Your task to perform on an android device: open device folders in google photos Image 0: 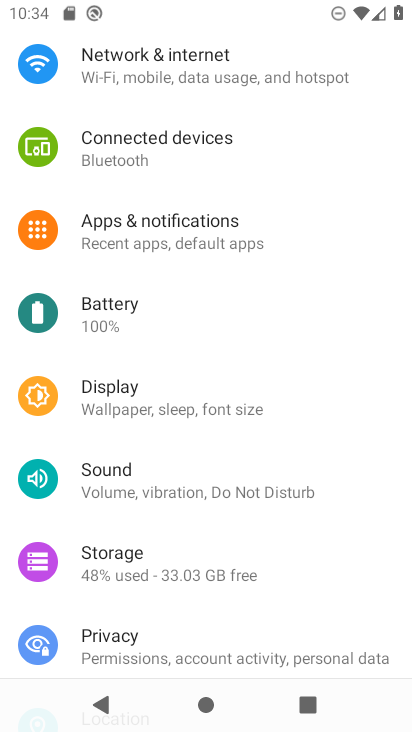
Step 0: press home button
Your task to perform on an android device: open device folders in google photos Image 1: 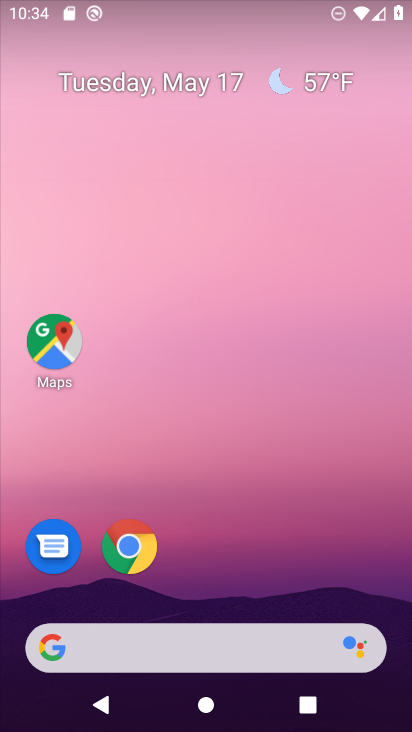
Step 1: drag from (297, 615) to (344, 27)
Your task to perform on an android device: open device folders in google photos Image 2: 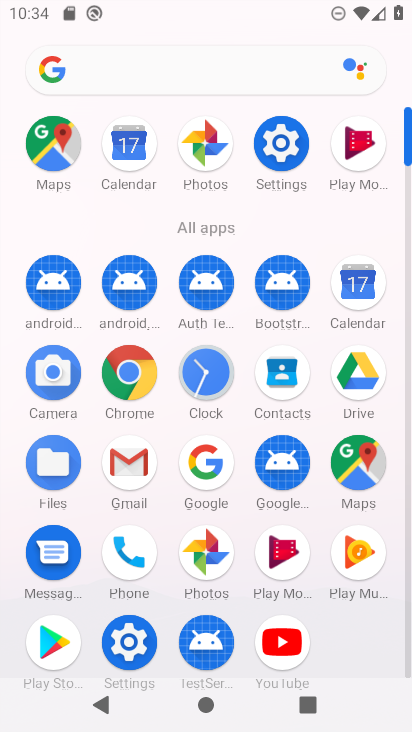
Step 2: click (207, 150)
Your task to perform on an android device: open device folders in google photos Image 3: 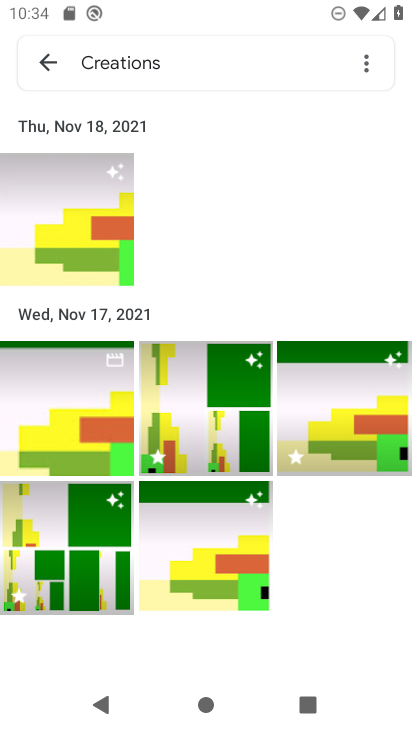
Step 3: click (41, 61)
Your task to perform on an android device: open device folders in google photos Image 4: 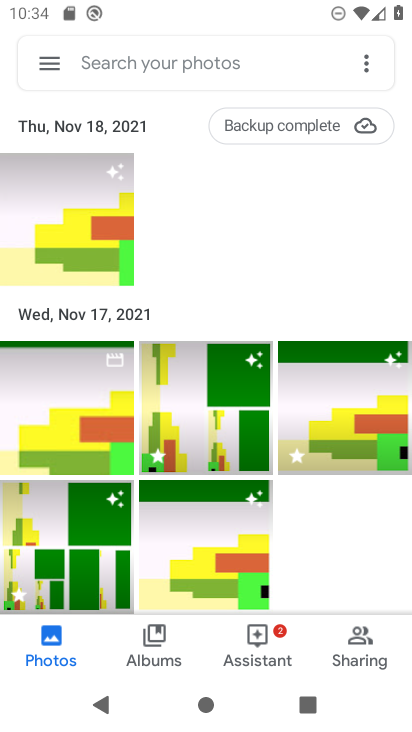
Step 4: click (44, 61)
Your task to perform on an android device: open device folders in google photos Image 5: 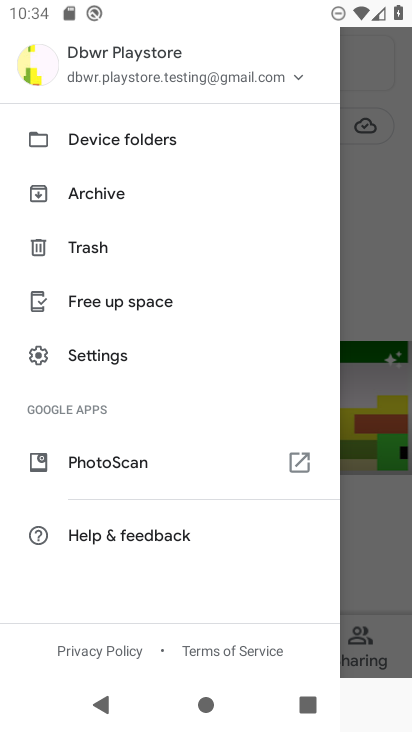
Step 5: click (96, 149)
Your task to perform on an android device: open device folders in google photos Image 6: 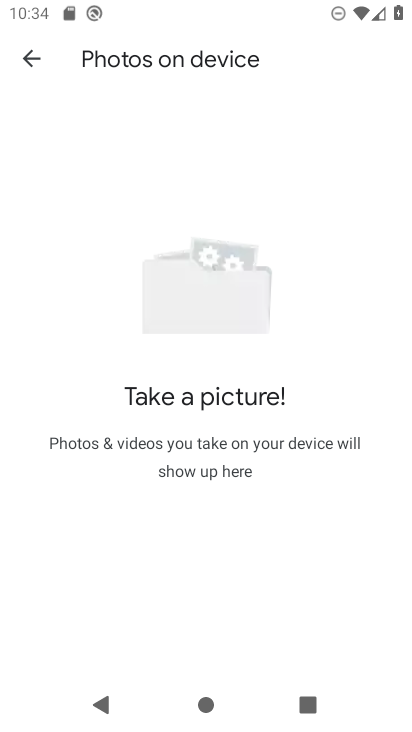
Step 6: task complete